Your task to perform on an android device: Turn off the flashlight Image 0: 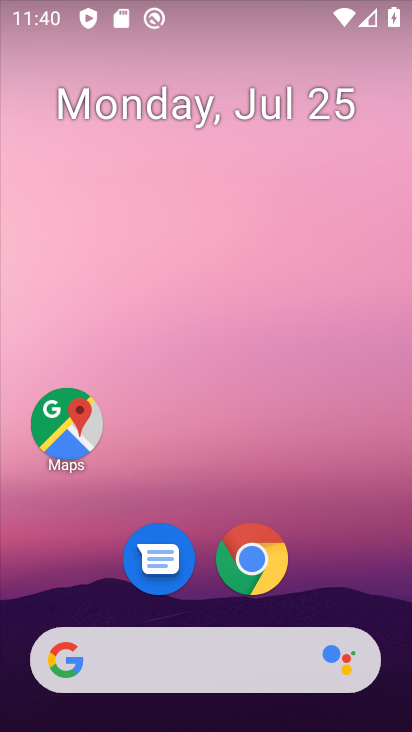
Step 0: drag from (104, 532) to (190, 205)
Your task to perform on an android device: Turn off the flashlight Image 1: 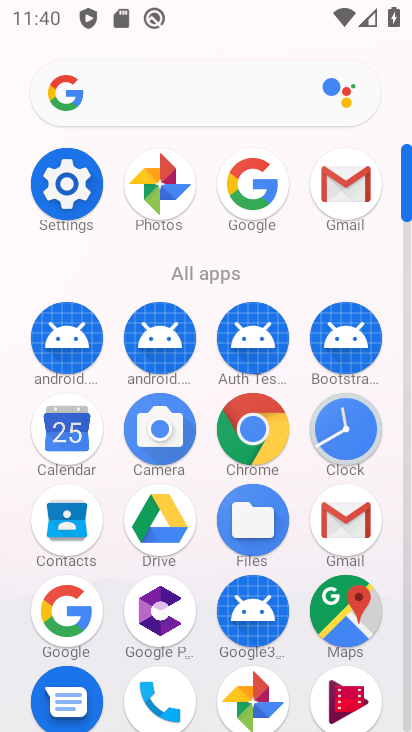
Step 1: click (64, 179)
Your task to perform on an android device: Turn off the flashlight Image 2: 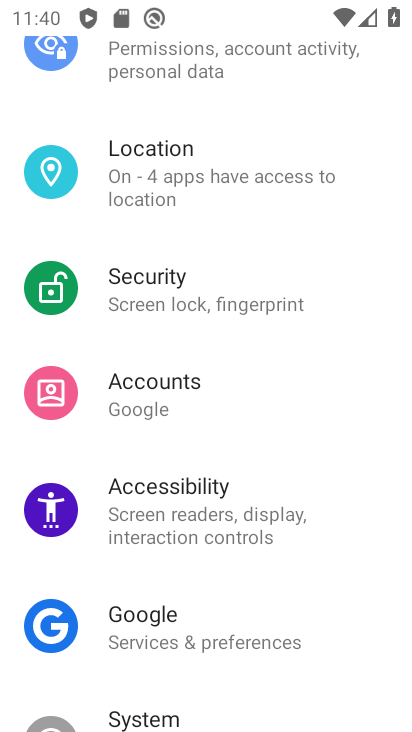
Step 2: drag from (317, 107) to (206, 661)
Your task to perform on an android device: Turn off the flashlight Image 3: 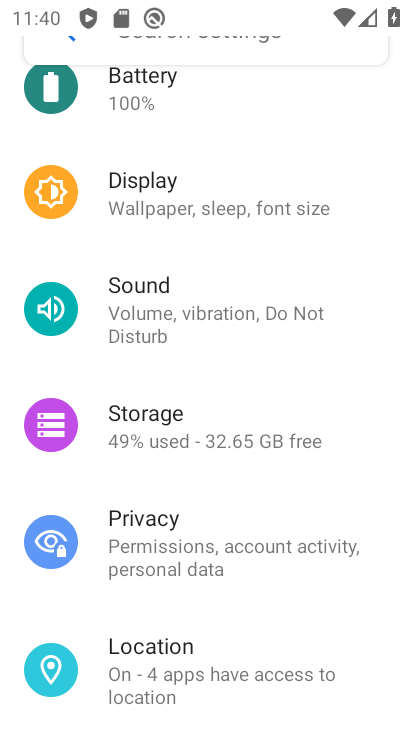
Step 3: drag from (295, 211) to (210, 704)
Your task to perform on an android device: Turn off the flashlight Image 4: 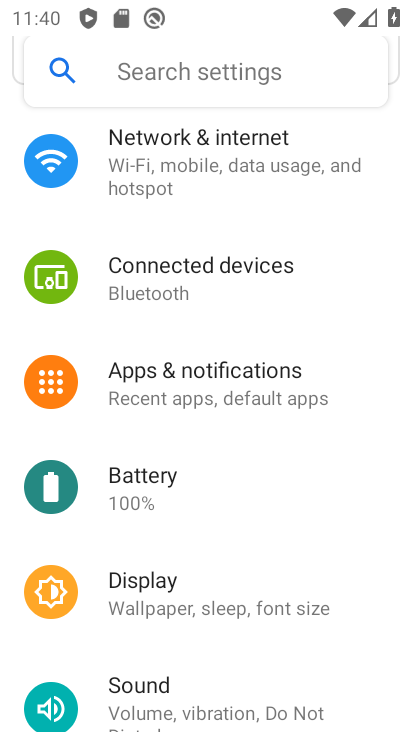
Step 4: click (174, 112)
Your task to perform on an android device: Turn off the flashlight Image 5: 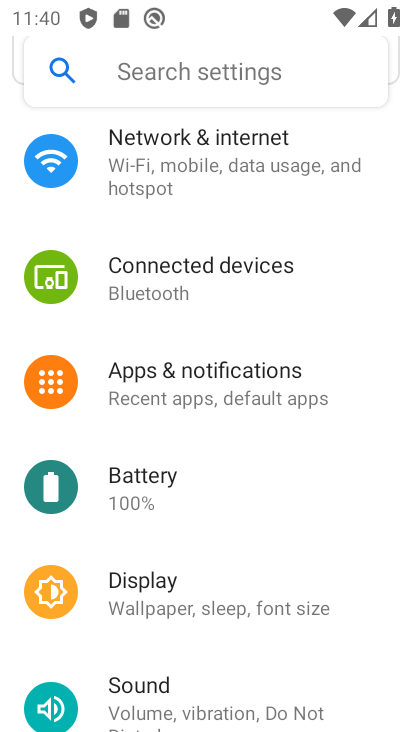
Step 5: click (171, 82)
Your task to perform on an android device: Turn off the flashlight Image 6: 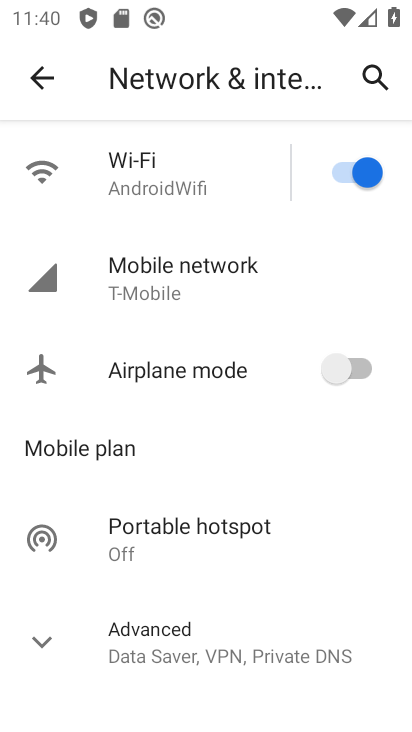
Step 6: click (61, 65)
Your task to perform on an android device: Turn off the flashlight Image 7: 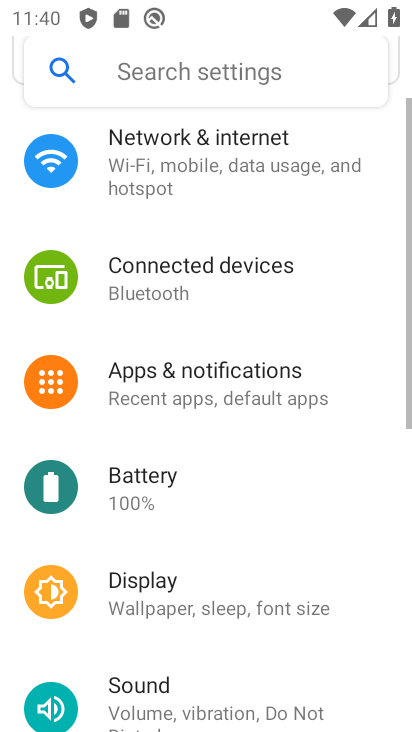
Step 7: click (251, 68)
Your task to perform on an android device: Turn off the flashlight Image 8: 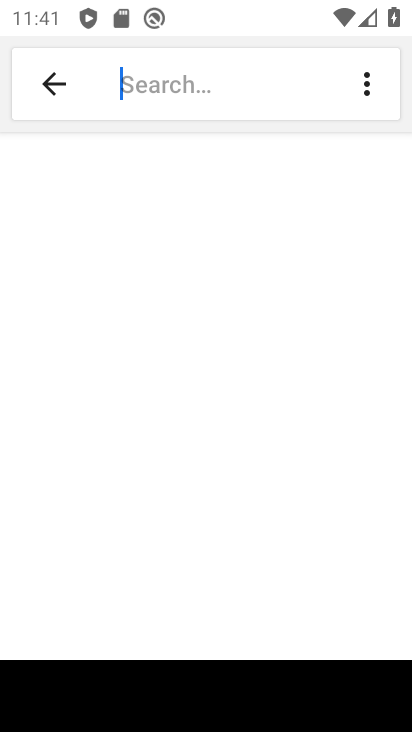
Step 8: type "flashlight"
Your task to perform on an android device: Turn off the flashlight Image 9: 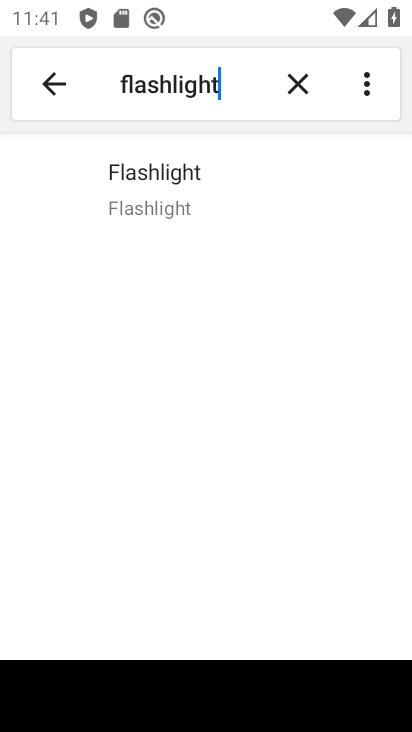
Step 9: click (178, 176)
Your task to perform on an android device: Turn off the flashlight Image 10: 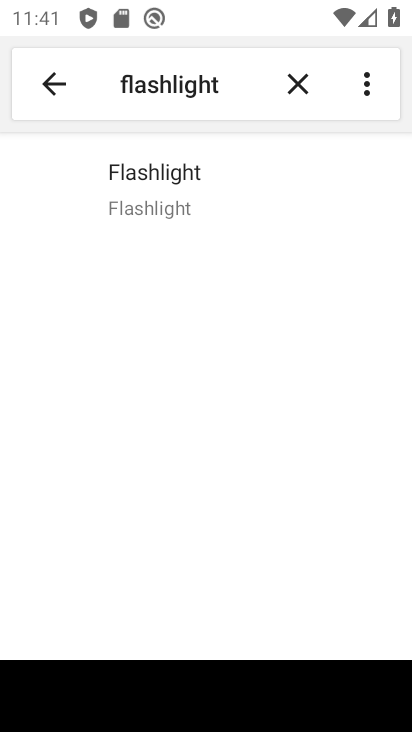
Step 10: task complete